Your task to perform on an android device: Show me popular videos on Youtube Image 0: 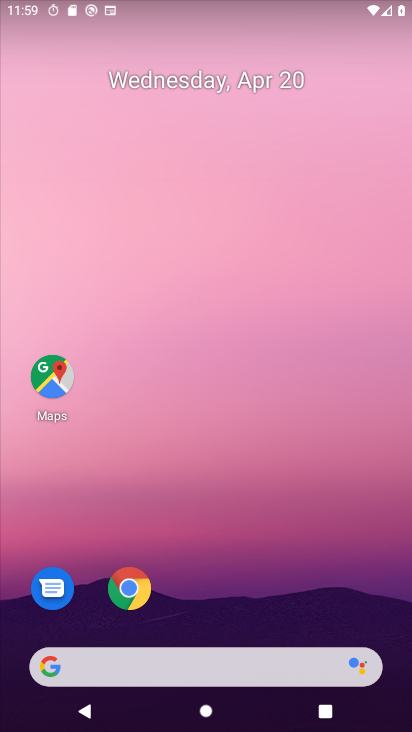
Step 0: drag from (205, 608) to (262, 1)
Your task to perform on an android device: Show me popular videos on Youtube Image 1: 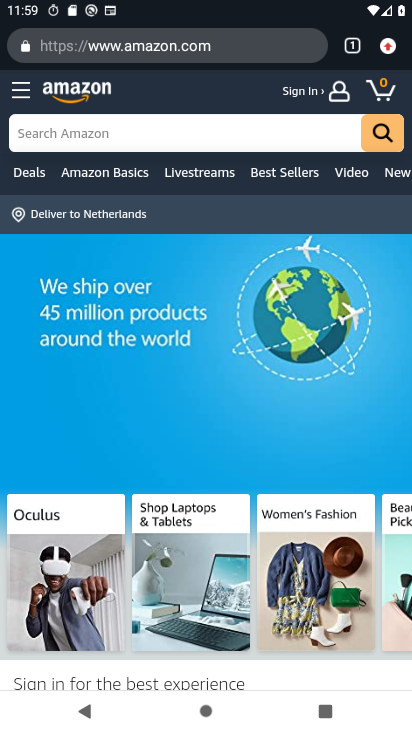
Step 1: press home button
Your task to perform on an android device: Show me popular videos on Youtube Image 2: 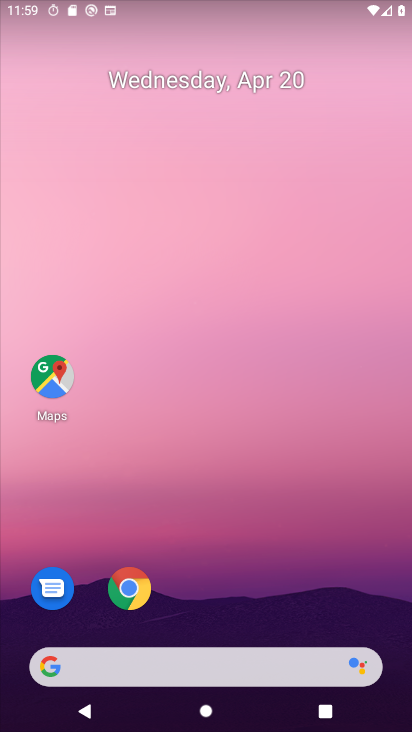
Step 2: drag from (220, 608) to (262, 36)
Your task to perform on an android device: Show me popular videos on Youtube Image 3: 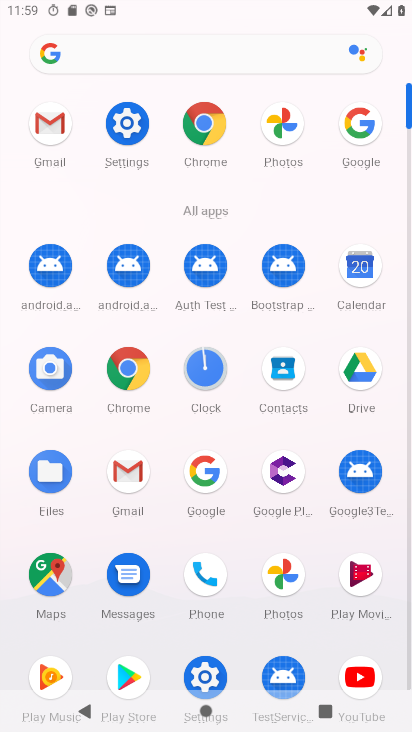
Step 3: drag from (241, 578) to (282, 150)
Your task to perform on an android device: Show me popular videos on Youtube Image 4: 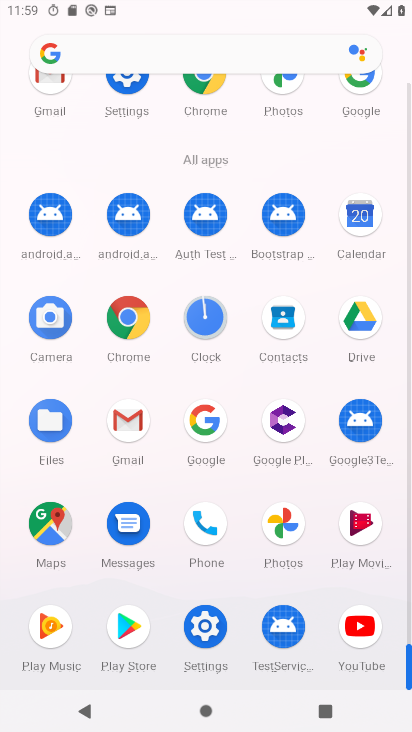
Step 4: click (357, 621)
Your task to perform on an android device: Show me popular videos on Youtube Image 5: 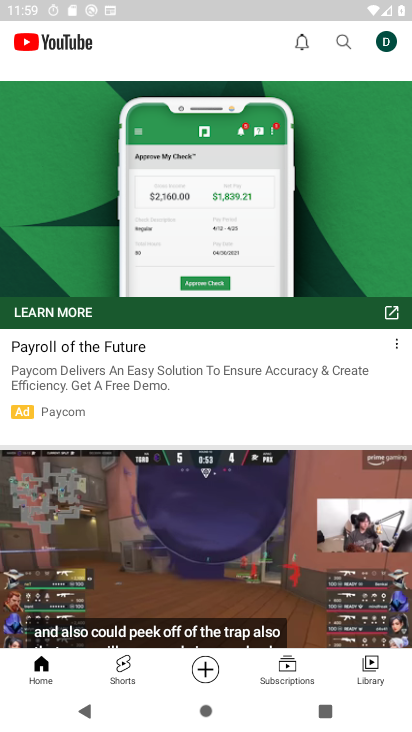
Step 5: drag from (174, 521) to (203, 251)
Your task to perform on an android device: Show me popular videos on Youtube Image 6: 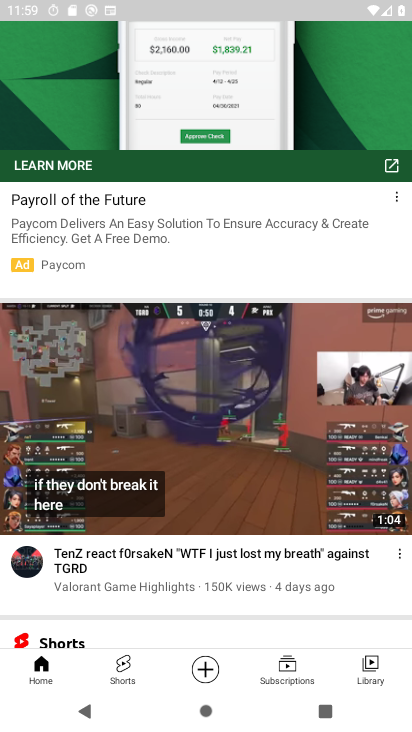
Step 6: drag from (197, 586) to (225, 193)
Your task to perform on an android device: Show me popular videos on Youtube Image 7: 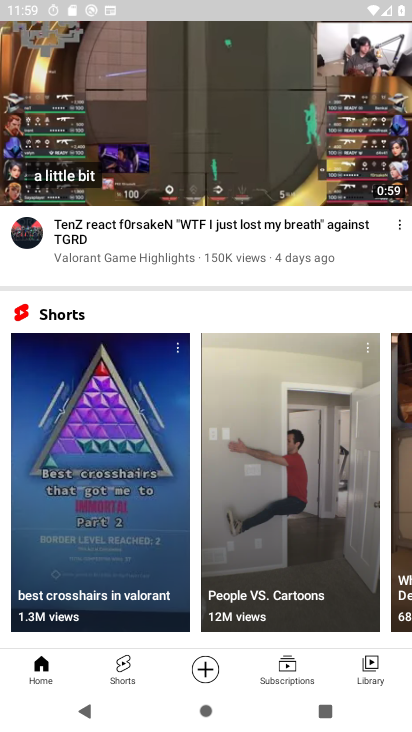
Step 7: drag from (252, 587) to (296, 124)
Your task to perform on an android device: Show me popular videos on Youtube Image 8: 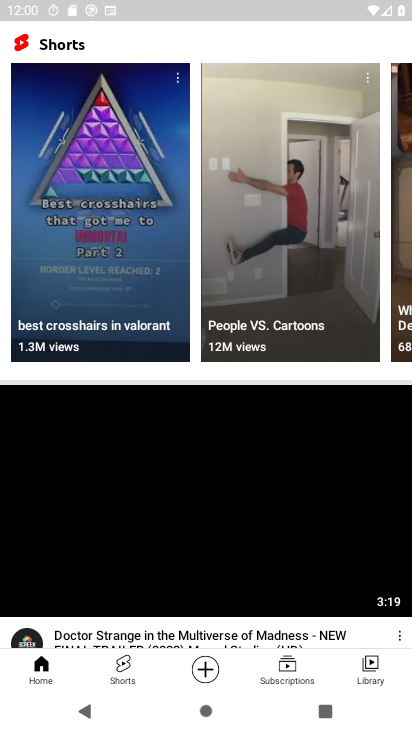
Step 8: drag from (209, 483) to (243, 195)
Your task to perform on an android device: Show me popular videos on Youtube Image 9: 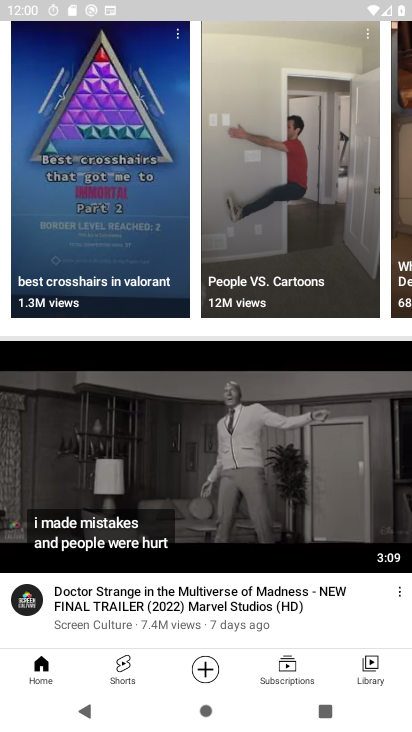
Step 9: click (371, 664)
Your task to perform on an android device: Show me popular videos on Youtube Image 10: 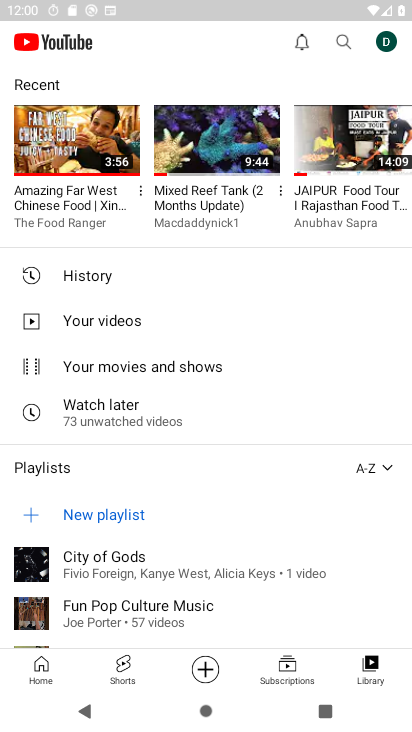
Step 10: drag from (168, 547) to (211, 165)
Your task to perform on an android device: Show me popular videos on Youtube Image 11: 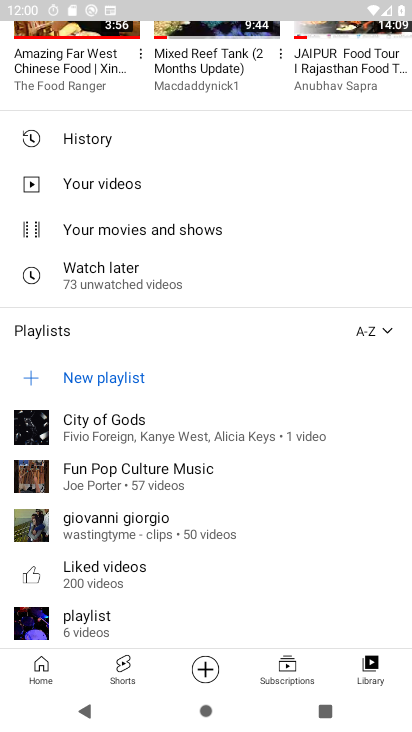
Step 11: drag from (195, 580) to (241, 257)
Your task to perform on an android device: Show me popular videos on Youtube Image 12: 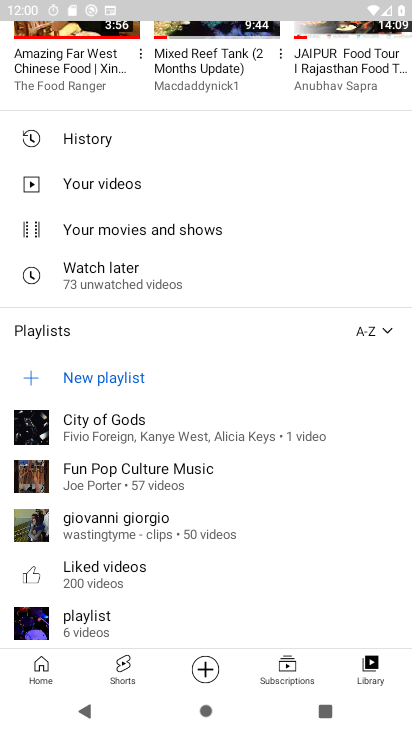
Step 12: drag from (136, 287) to (163, 668)
Your task to perform on an android device: Show me popular videos on Youtube Image 13: 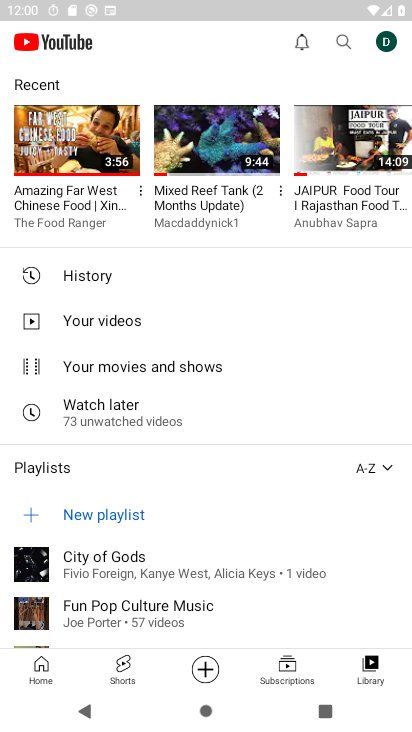
Step 13: click (127, 666)
Your task to perform on an android device: Show me popular videos on Youtube Image 14: 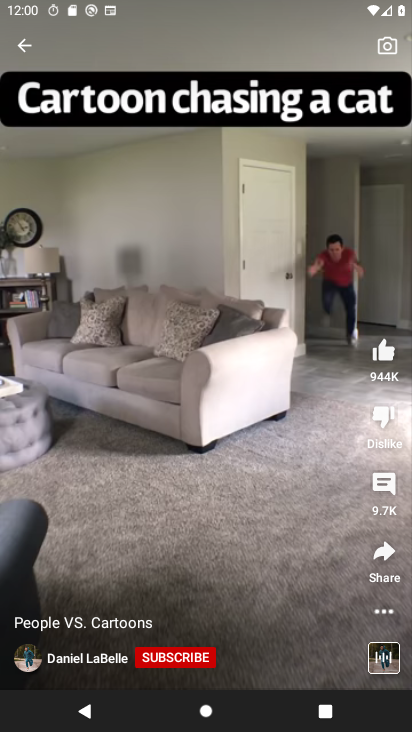
Step 14: task complete